Your task to perform on an android device: Go to Yahoo.com Image 0: 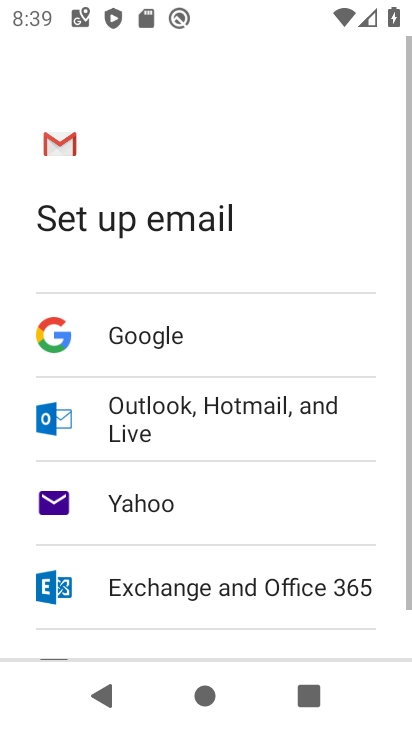
Step 0: press home button
Your task to perform on an android device: Go to Yahoo.com Image 1: 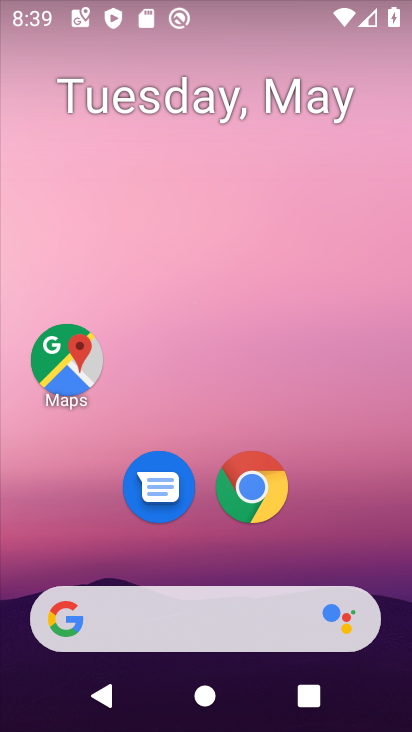
Step 1: drag from (361, 550) to (364, 178)
Your task to perform on an android device: Go to Yahoo.com Image 2: 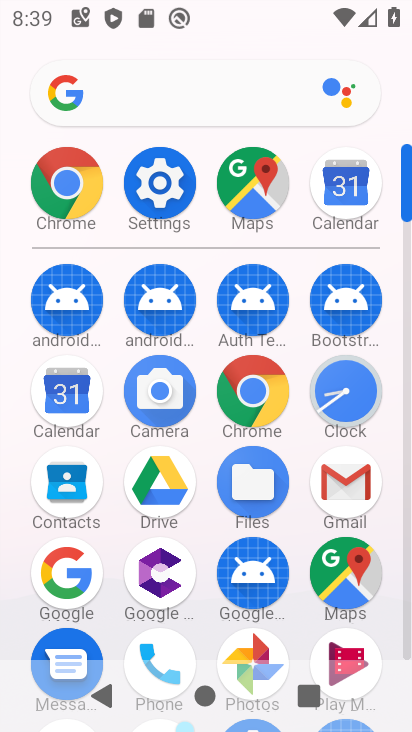
Step 2: click (262, 392)
Your task to perform on an android device: Go to Yahoo.com Image 3: 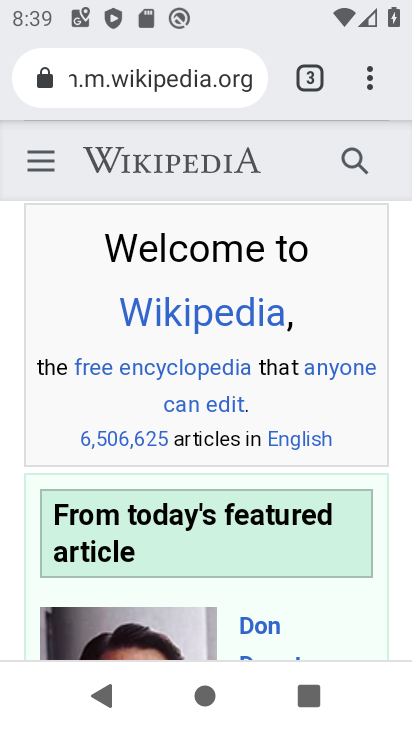
Step 3: click (218, 71)
Your task to perform on an android device: Go to Yahoo.com Image 4: 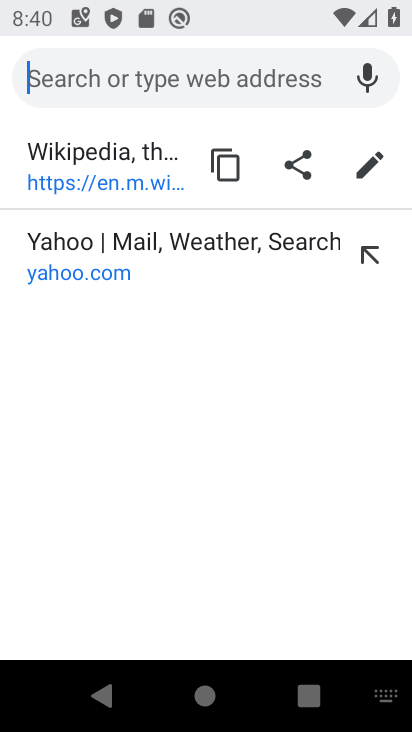
Step 4: type "yahoo.com"
Your task to perform on an android device: Go to Yahoo.com Image 5: 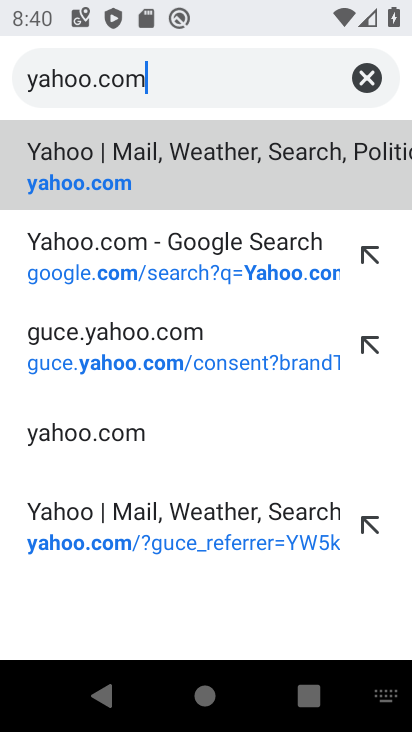
Step 5: click (221, 179)
Your task to perform on an android device: Go to Yahoo.com Image 6: 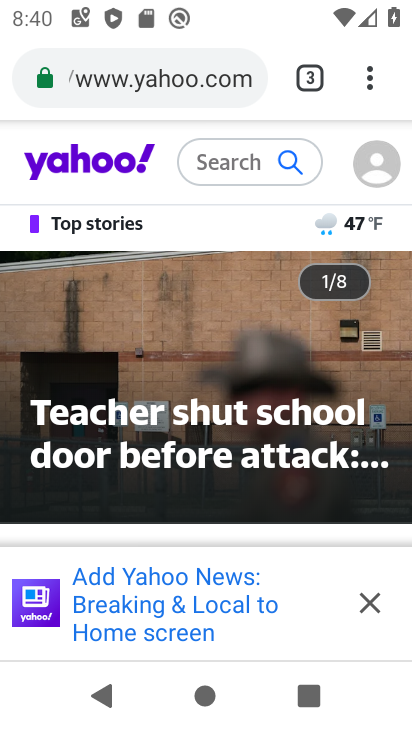
Step 6: task complete